Your task to perform on an android device: Open the web browser Image 0: 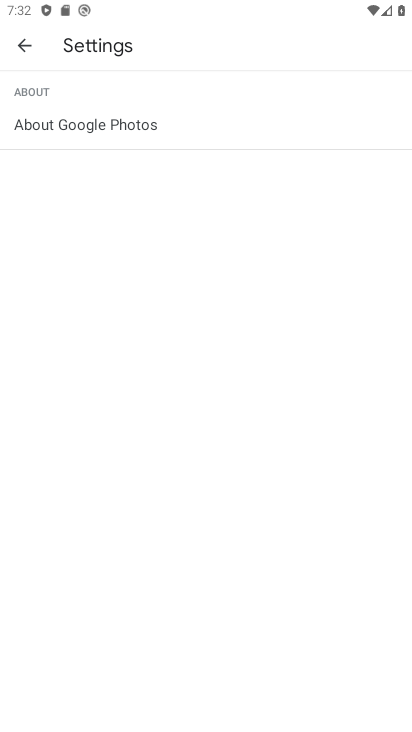
Step 0: press home button
Your task to perform on an android device: Open the web browser Image 1: 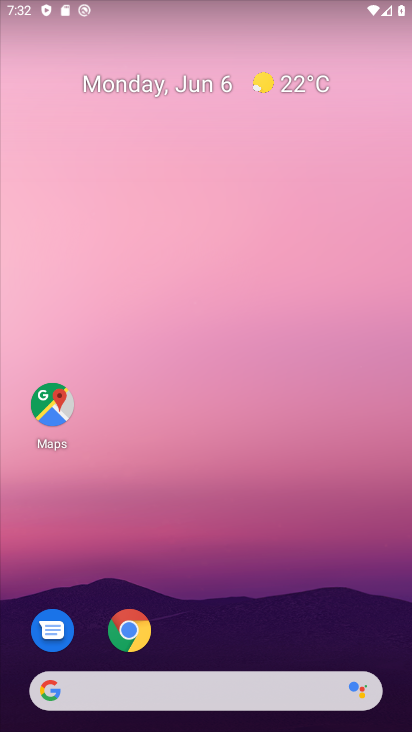
Step 1: click (121, 645)
Your task to perform on an android device: Open the web browser Image 2: 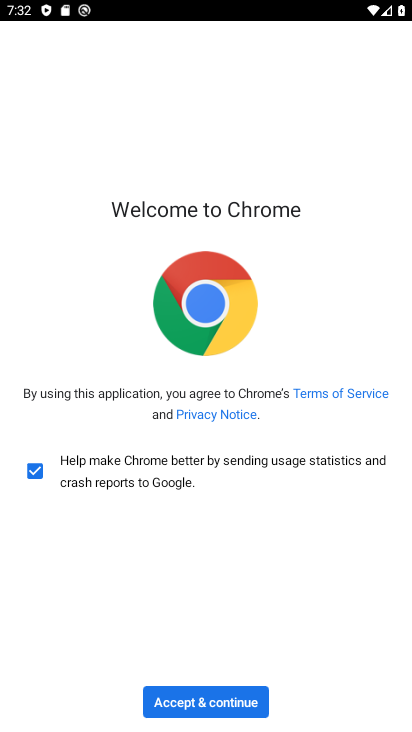
Step 2: click (258, 703)
Your task to perform on an android device: Open the web browser Image 3: 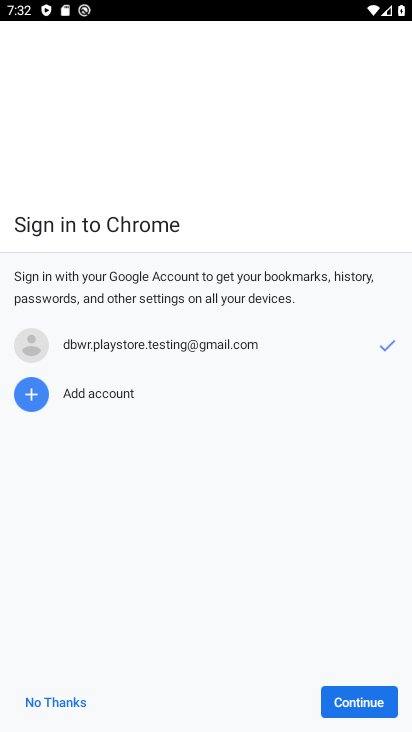
Step 3: click (340, 714)
Your task to perform on an android device: Open the web browser Image 4: 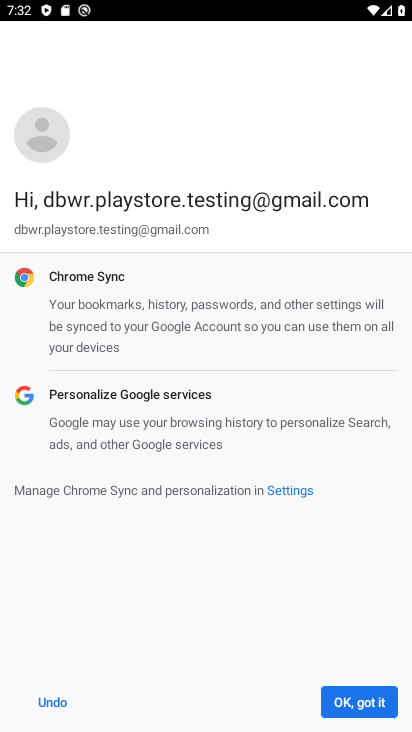
Step 4: click (343, 709)
Your task to perform on an android device: Open the web browser Image 5: 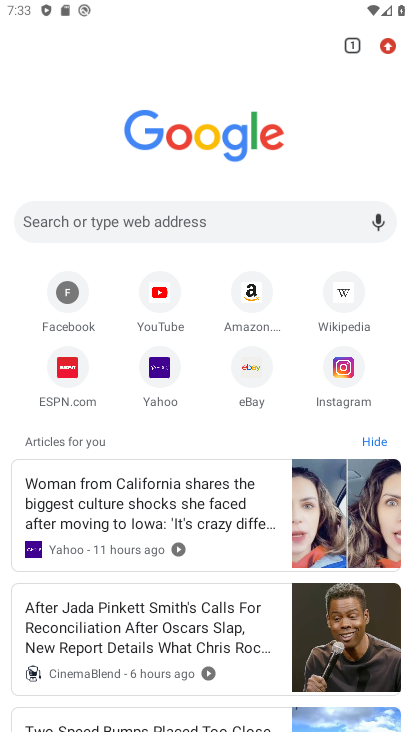
Step 5: task complete